Your task to perform on an android device: Is it going to rain today? Image 0: 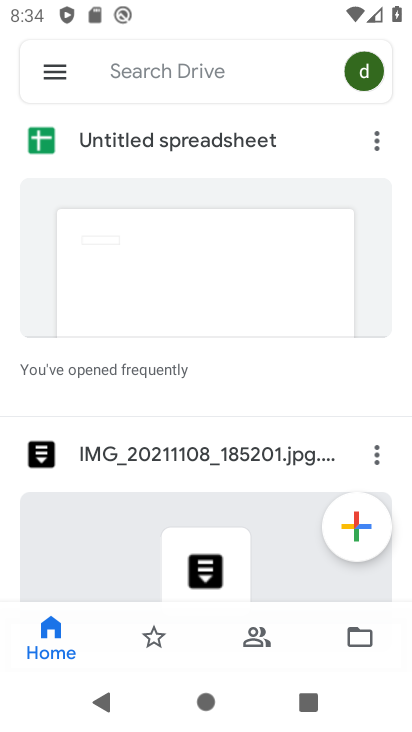
Step 0: press home button
Your task to perform on an android device: Is it going to rain today? Image 1: 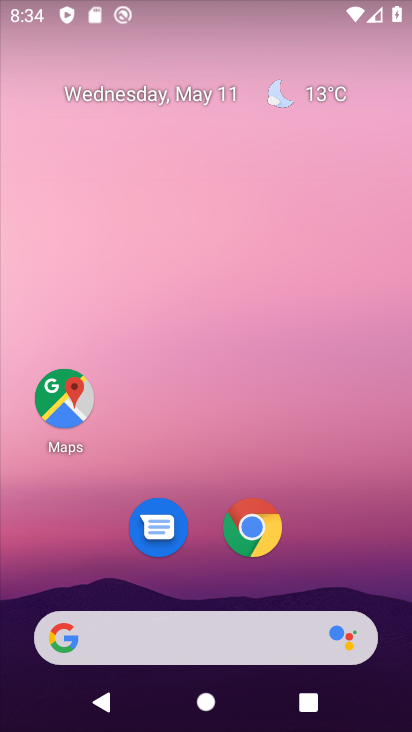
Step 1: click (261, 530)
Your task to perform on an android device: Is it going to rain today? Image 2: 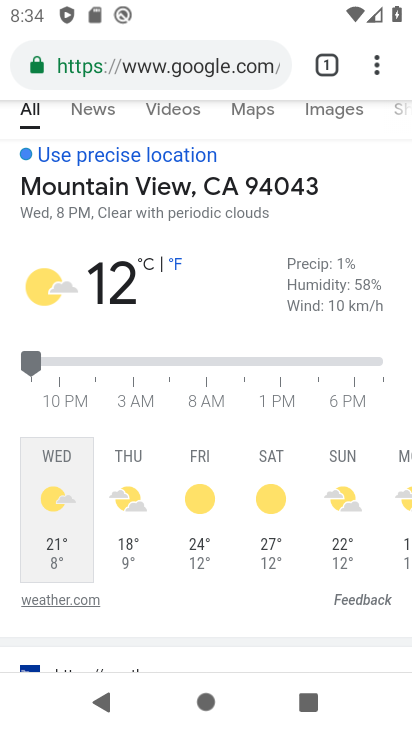
Step 2: click (259, 60)
Your task to perform on an android device: Is it going to rain today? Image 3: 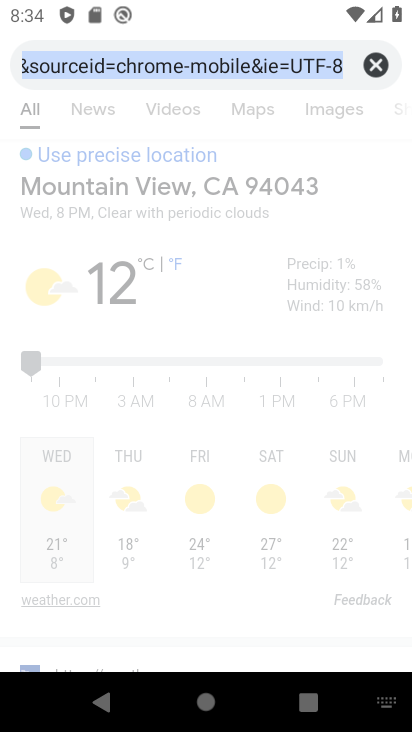
Step 3: type "is it going to rain today?"
Your task to perform on an android device: Is it going to rain today? Image 4: 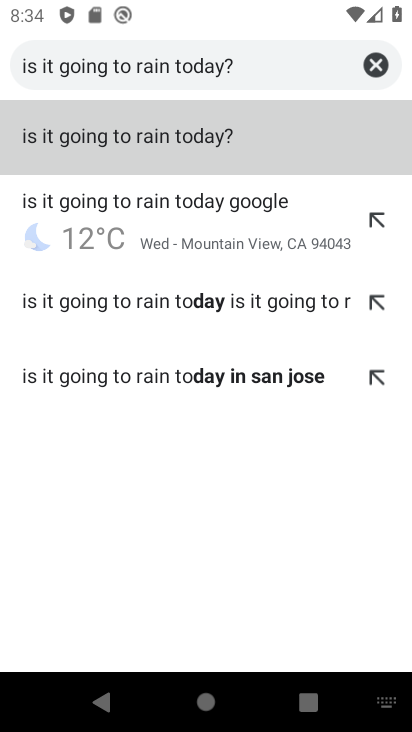
Step 4: click (30, 139)
Your task to perform on an android device: Is it going to rain today? Image 5: 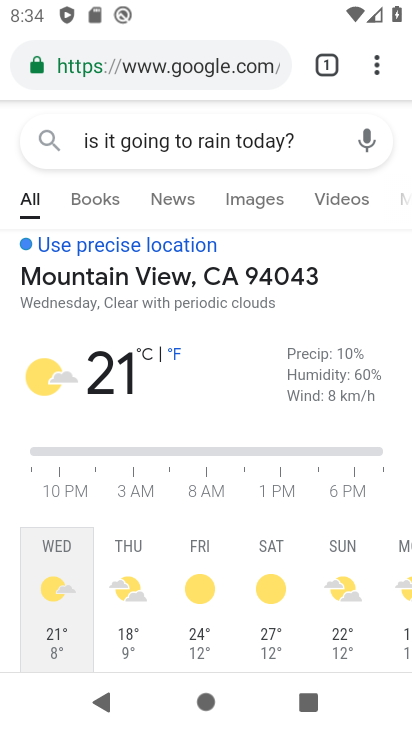
Step 5: task complete